Your task to perform on an android device: Go to settings Image 0: 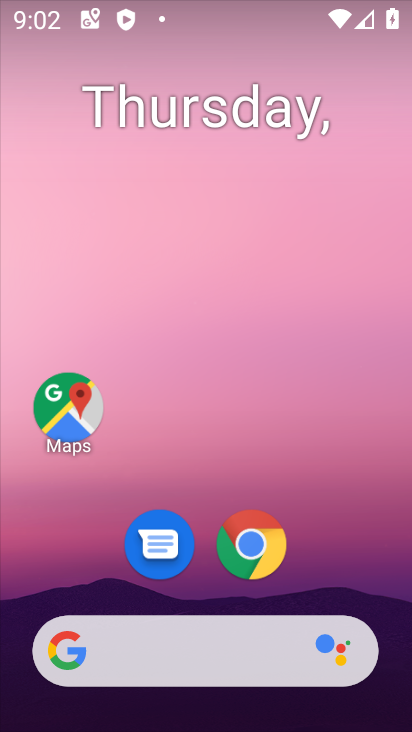
Step 0: drag from (68, 597) to (232, 109)
Your task to perform on an android device: Go to settings Image 1: 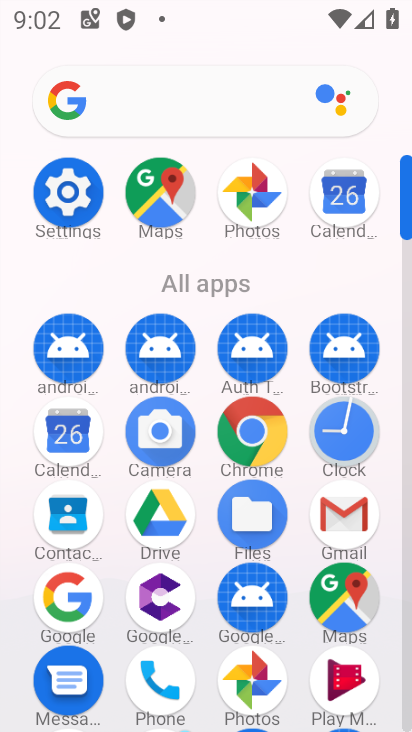
Step 1: drag from (162, 640) to (260, 251)
Your task to perform on an android device: Go to settings Image 2: 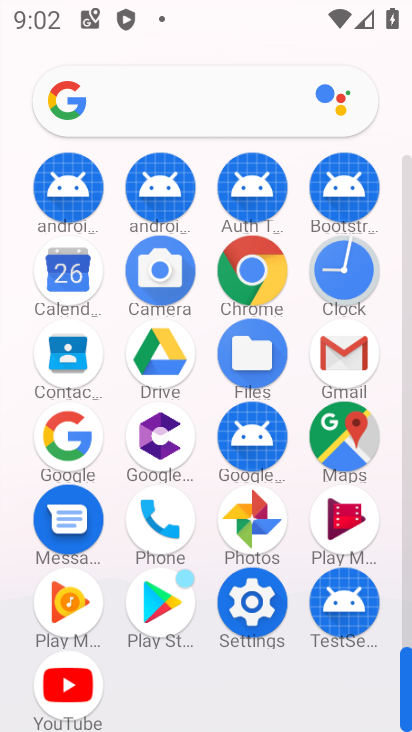
Step 2: click (258, 607)
Your task to perform on an android device: Go to settings Image 3: 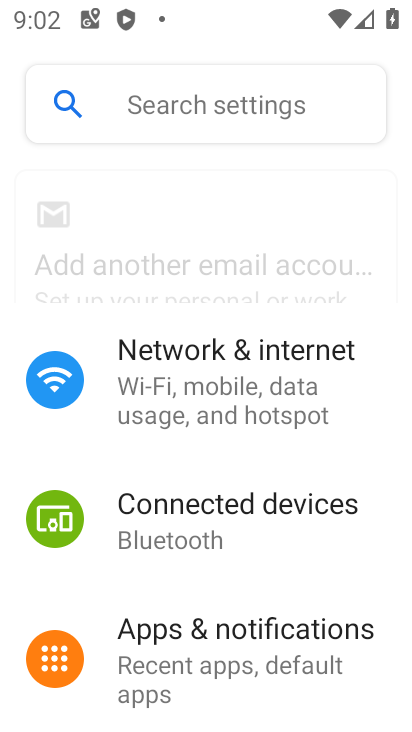
Step 3: task complete